Your task to perform on an android device: see creations saved in the google photos Image 0: 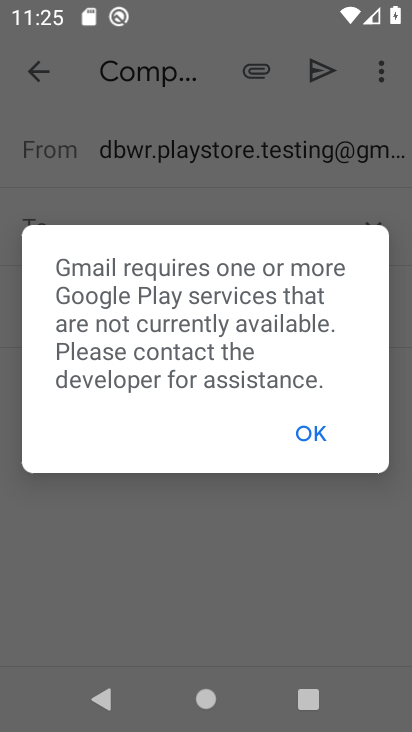
Step 0: press back button
Your task to perform on an android device: see creations saved in the google photos Image 1: 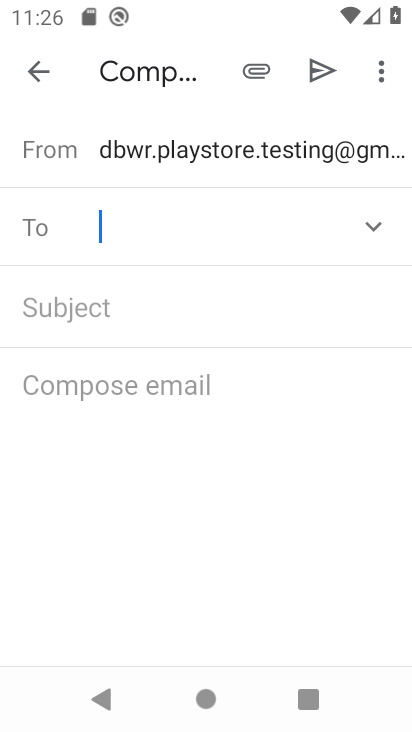
Step 1: click (35, 62)
Your task to perform on an android device: see creations saved in the google photos Image 2: 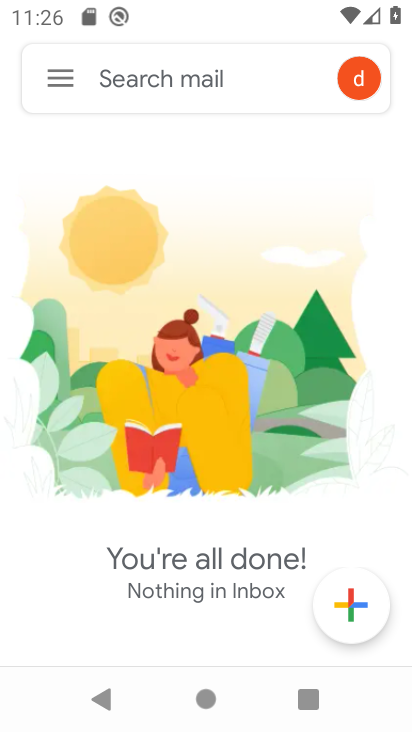
Step 2: press back button
Your task to perform on an android device: see creations saved in the google photos Image 3: 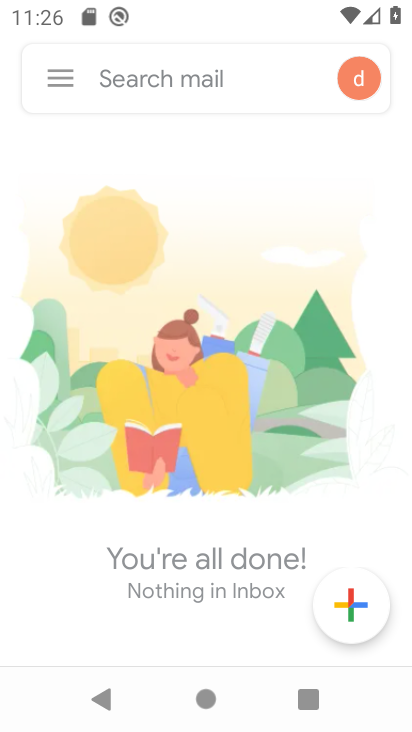
Step 3: press back button
Your task to perform on an android device: see creations saved in the google photos Image 4: 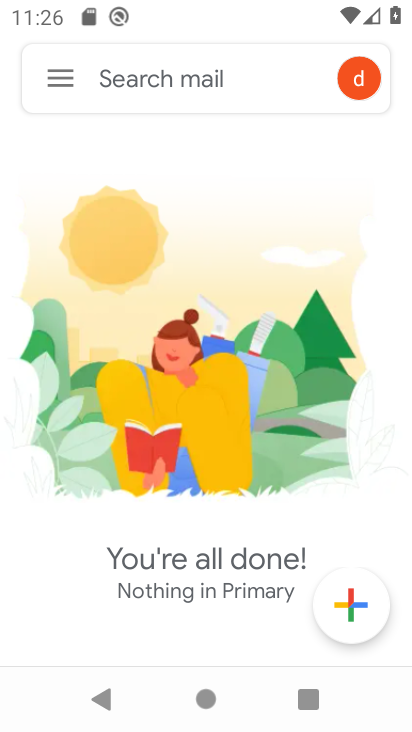
Step 4: press back button
Your task to perform on an android device: see creations saved in the google photos Image 5: 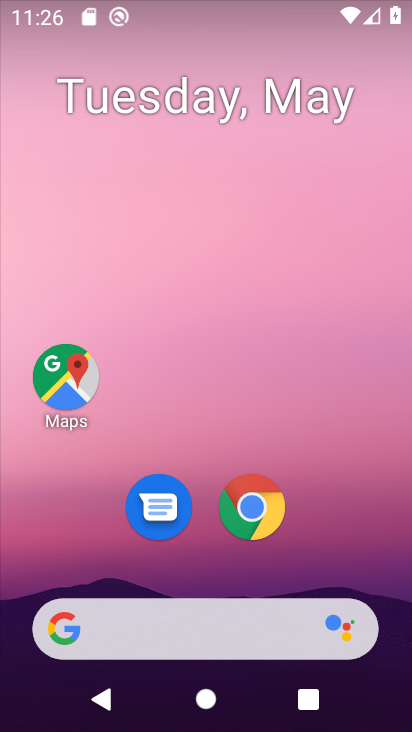
Step 5: press home button
Your task to perform on an android device: see creations saved in the google photos Image 6: 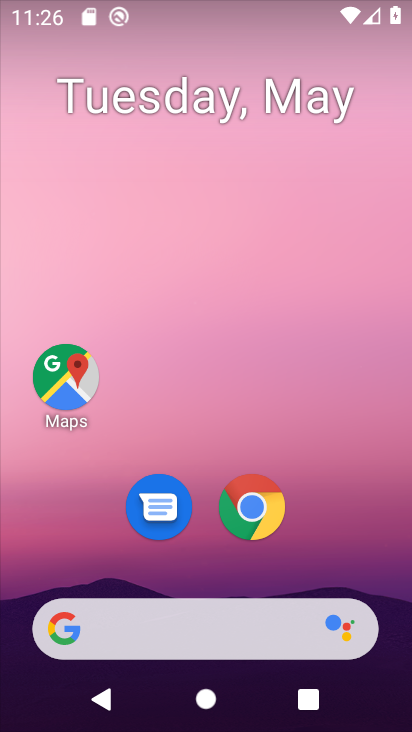
Step 6: drag from (274, 667) to (218, 76)
Your task to perform on an android device: see creations saved in the google photos Image 7: 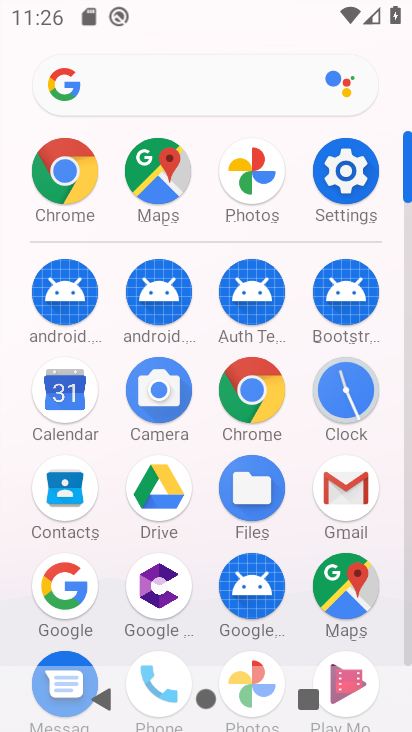
Step 7: drag from (290, 489) to (252, 177)
Your task to perform on an android device: see creations saved in the google photos Image 8: 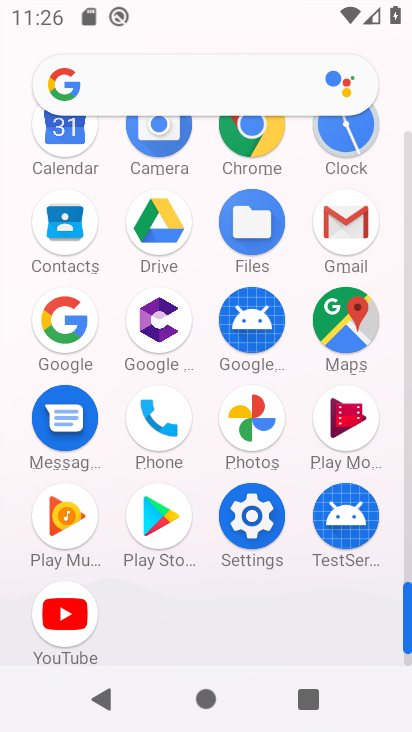
Step 8: drag from (304, 413) to (309, 65)
Your task to perform on an android device: see creations saved in the google photos Image 9: 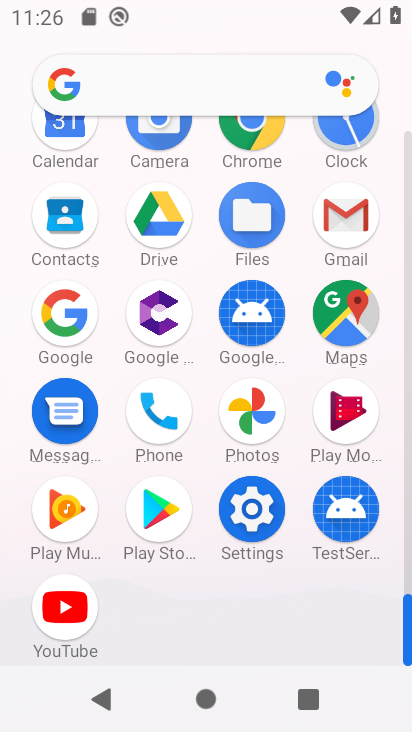
Step 9: click (242, 419)
Your task to perform on an android device: see creations saved in the google photos Image 10: 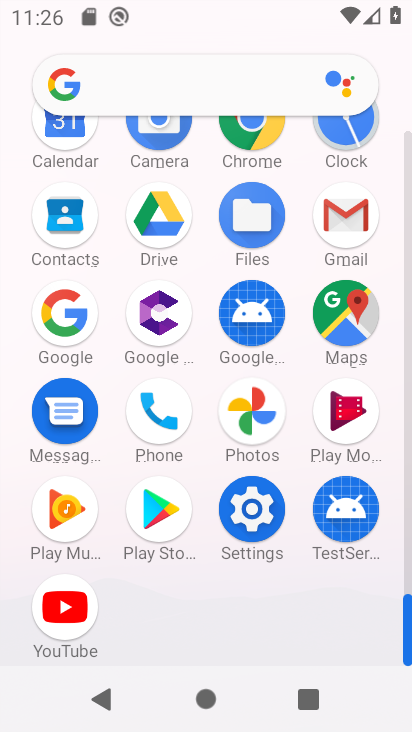
Step 10: click (243, 416)
Your task to perform on an android device: see creations saved in the google photos Image 11: 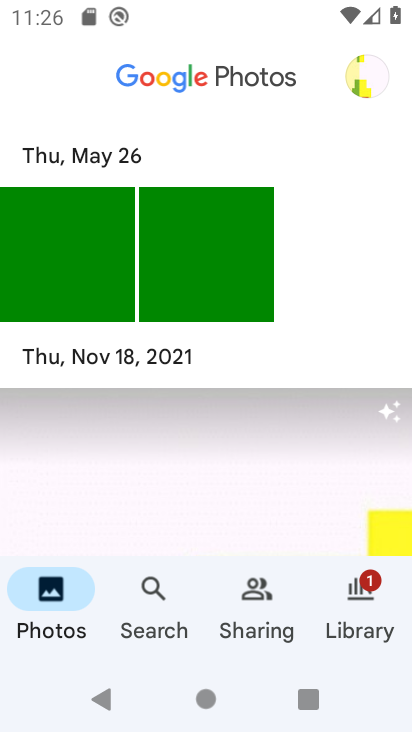
Step 11: task complete